Your task to perform on an android device: Go to Wikipedia Image 0: 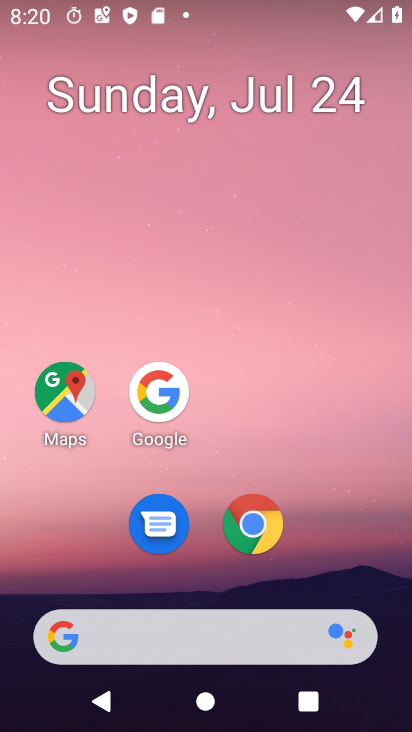
Step 0: press home button
Your task to perform on an android device: Go to Wikipedia Image 1: 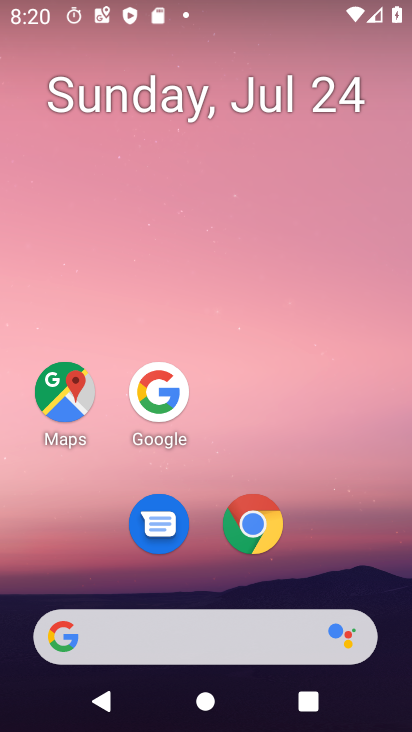
Step 1: click (249, 526)
Your task to perform on an android device: Go to Wikipedia Image 2: 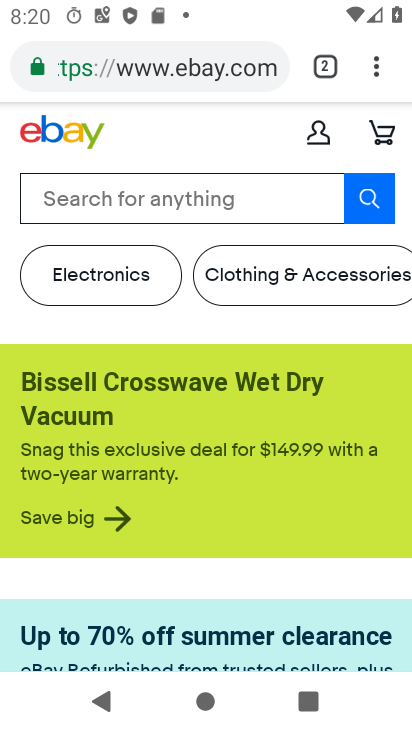
Step 2: drag from (375, 65) to (270, 131)
Your task to perform on an android device: Go to Wikipedia Image 3: 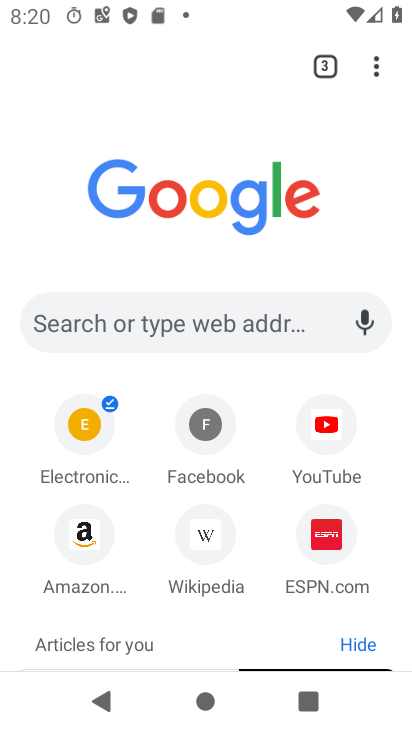
Step 3: click (208, 545)
Your task to perform on an android device: Go to Wikipedia Image 4: 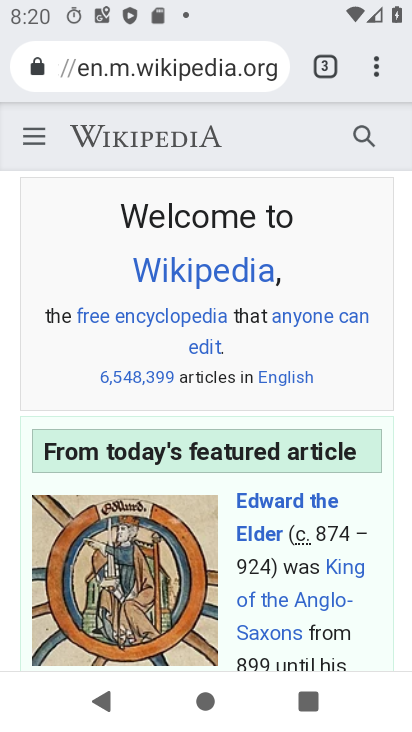
Step 4: task complete